Your task to perform on an android device: Go to settings Image 0: 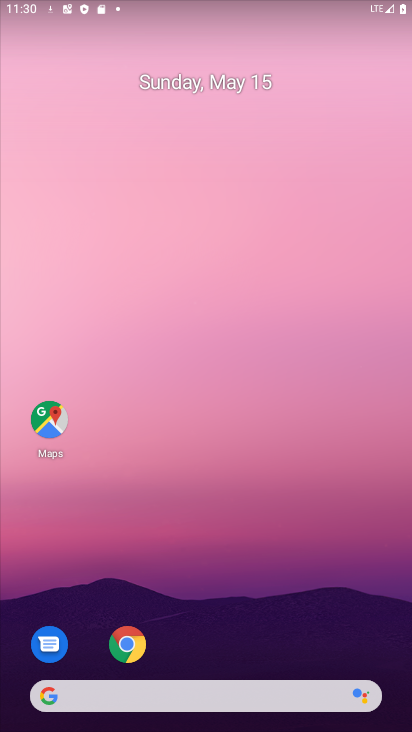
Step 0: drag from (192, 715) to (151, 362)
Your task to perform on an android device: Go to settings Image 1: 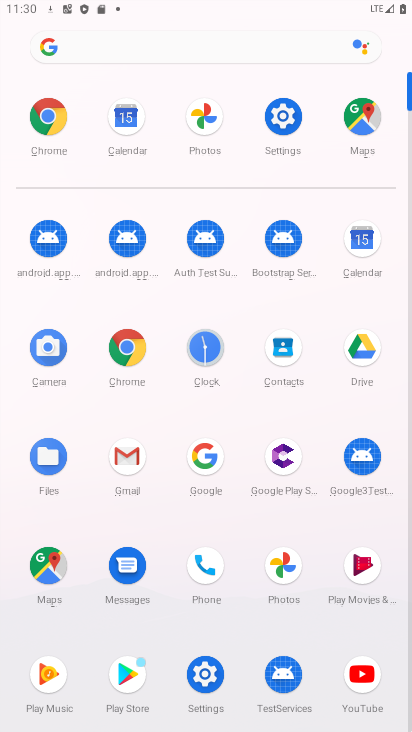
Step 1: click (276, 127)
Your task to perform on an android device: Go to settings Image 2: 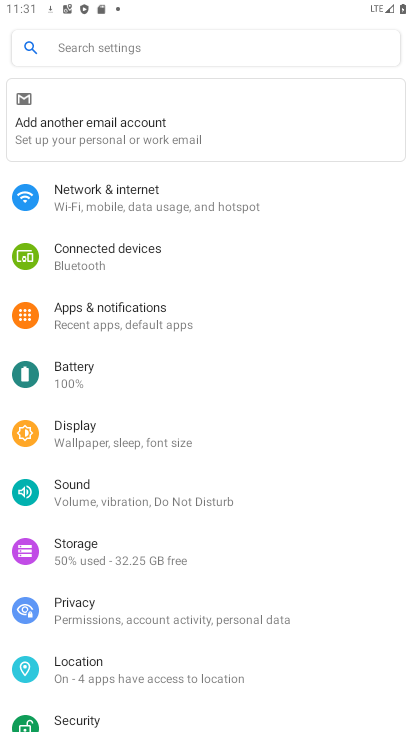
Step 2: task complete